Your task to perform on an android device: Go to Reddit.com Image 0: 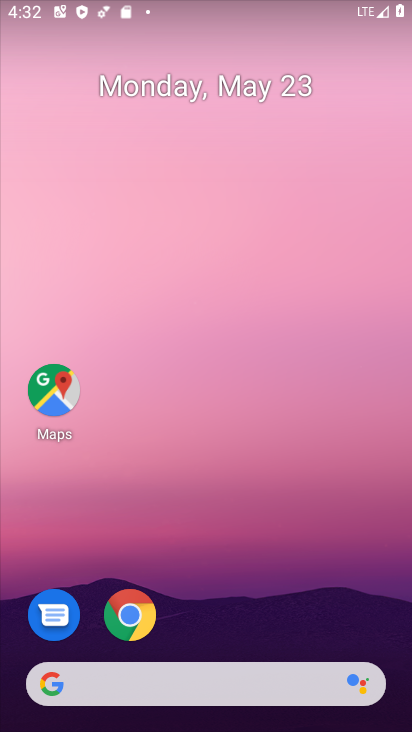
Step 0: click (130, 611)
Your task to perform on an android device: Go to Reddit.com Image 1: 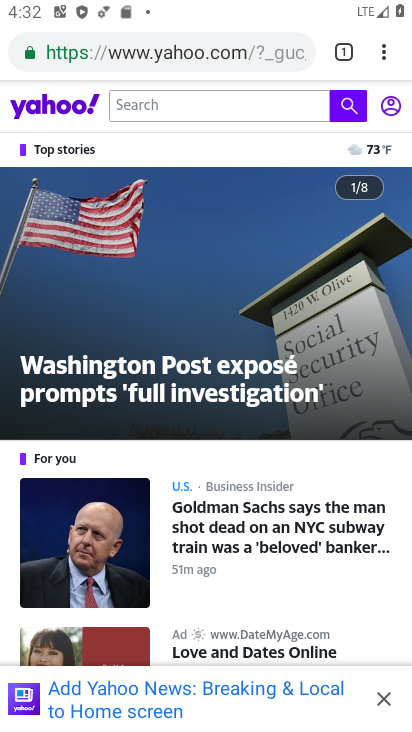
Step 1: click (208, 44)
Your task to perform on an android device: Go to Reddit.com Image 2: 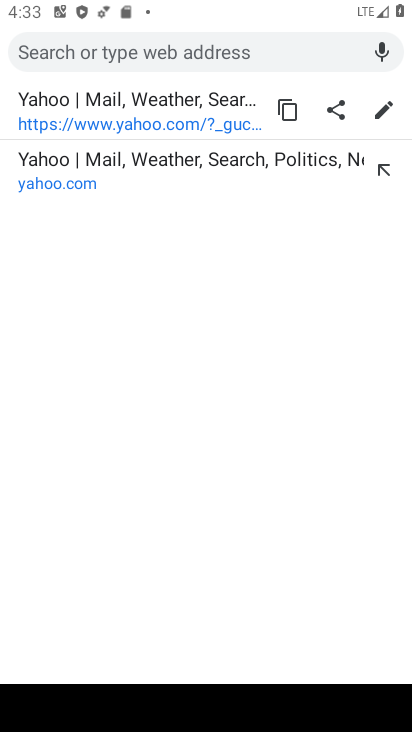
Step 2: type " Reddit.com"
Your task to perform on an android device: Go to Reddit.com Image 3: 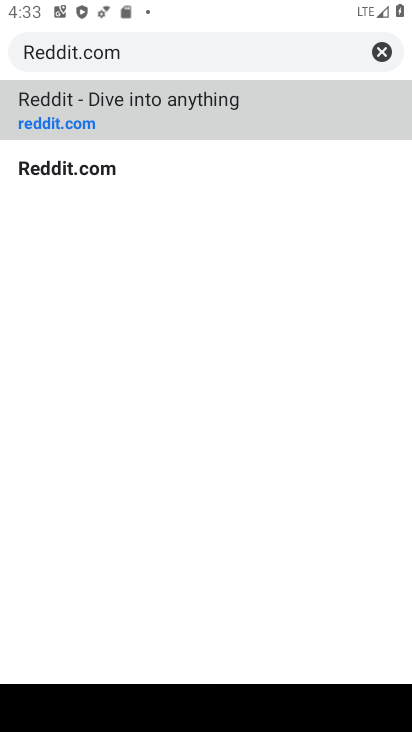
Step 3: click (49, 122)
Your task to perform on an android device: Go to Reddit.com Image 4: 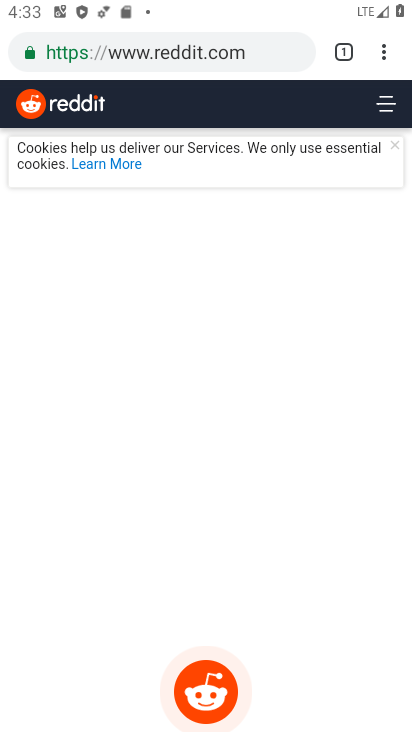
Step 4: task complete